Your task to perform on an android device: read, delete, or share a saved page in the chrome app Image 0: 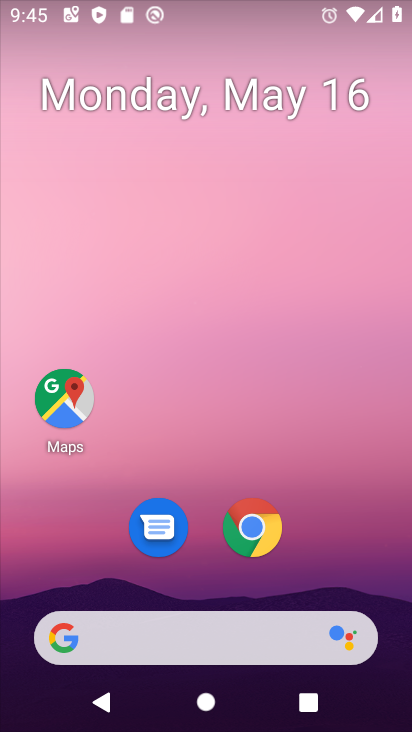
Step 0: click (263, 536)
Your task to perform on an android device: read, delete, or share a saved page in the chrome app Image 1: 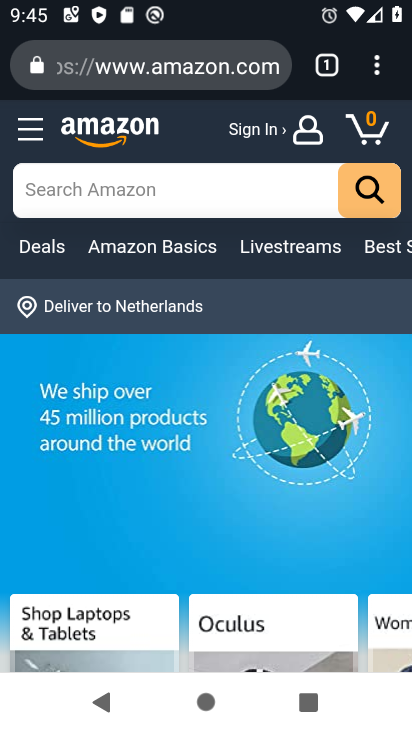
Step 1: click (383, 69)
Your task to perform on an android device: read, delete, or share a saved page in the chrome app Image 2: 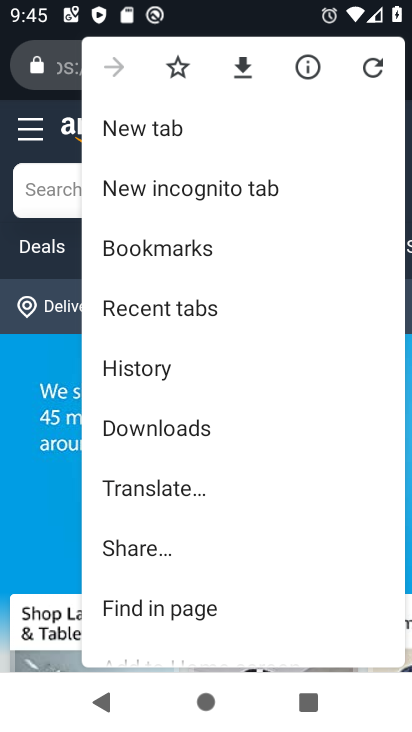
Step 2: click (129, 424)
Your task to perform on an android device: read, delete, or share a saved page in the chrome app Image 3: 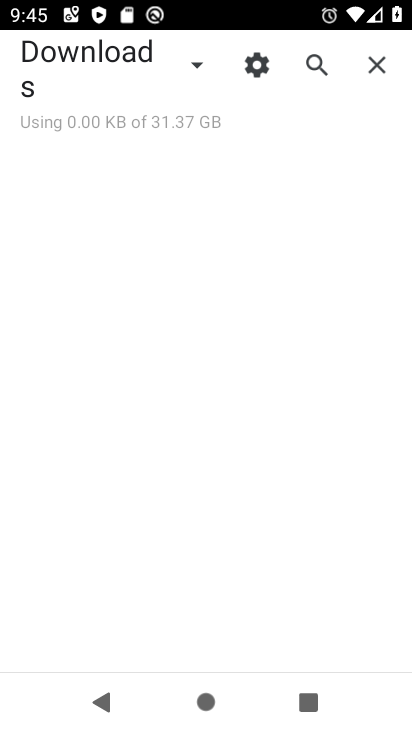
Step 3: click (202, 68)
Your task to perform on an android device: read, delete, or share a saved page in the chrome app Image 4: 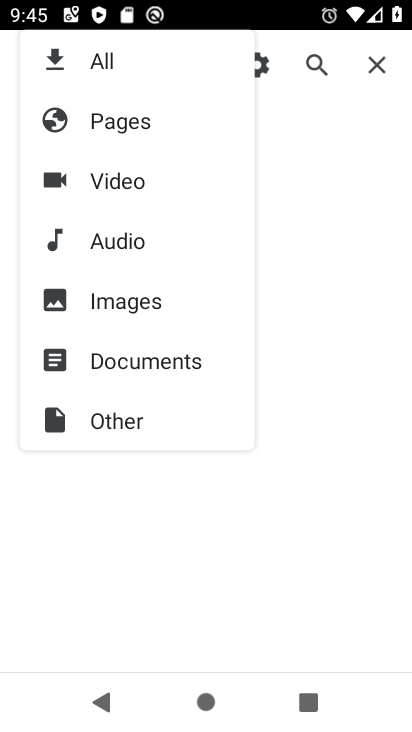
Step 4: click (149, 120)
Your task to perform on an android device: read, delete, or share a saved page in the chrome app Image 5: 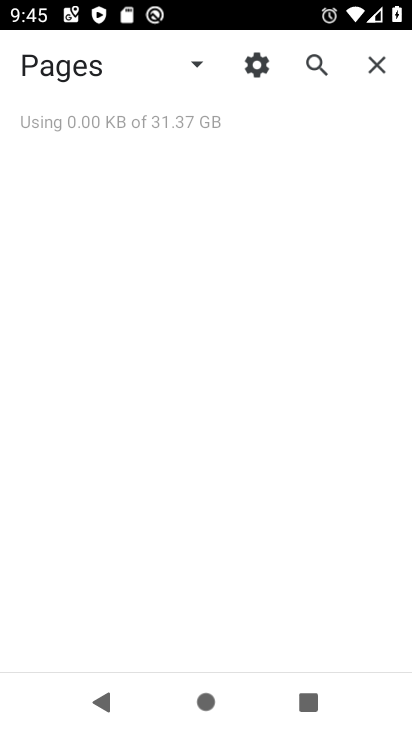
Step 5: task complete